Your task to perform on an android device: turn on priority inbox in the gmail app Image 0: 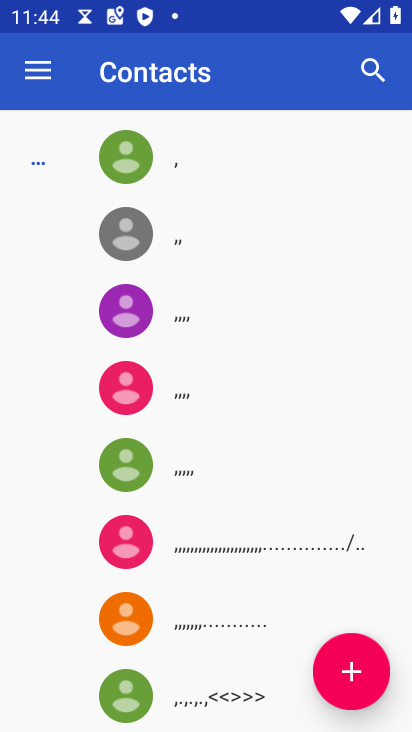
Step 0: press home button
Your task to perform on an android device: turn on priority inbox in the gmail app Image 1: 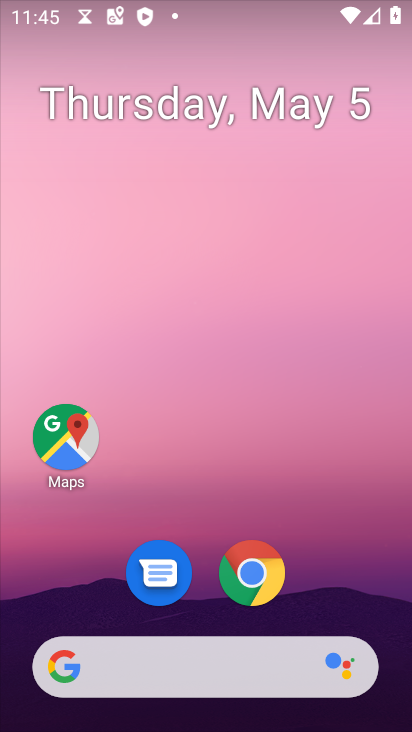
Step 1: drag from (310, 526) to (284, 238)
Your task to perform on an android device: turn on priority inbox in the gmail app Image 2: 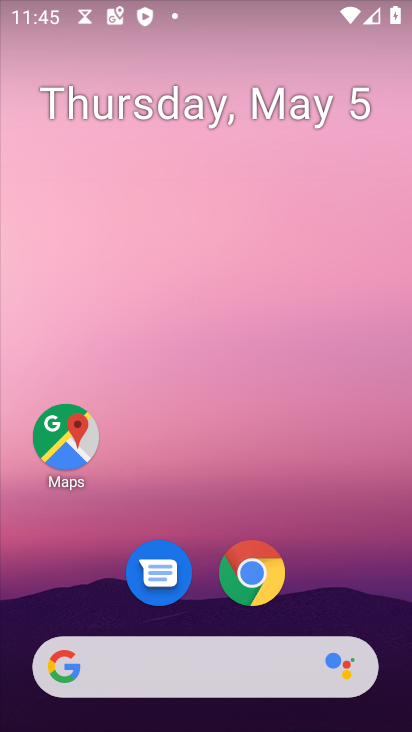
Step 2: drag from (298, 582) to (318, 220)
Your task to perform on an android device: turn on priority inbox in the gmail app Image 3: 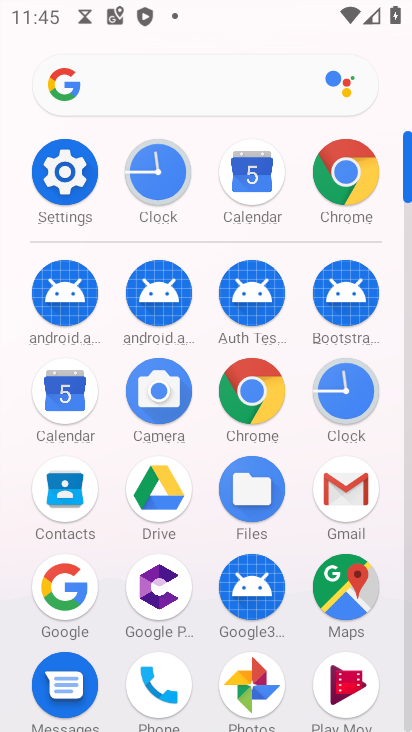
Step 3: click (339, 485)
Your task to perform on an android device: turn on priority inbox in the gmail app Image 4: 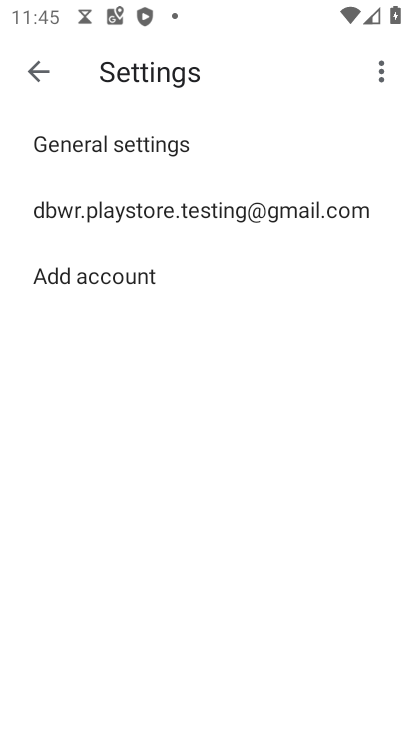
Step 4: click (144, 197)
Your task to perform on an android device: turn on priority inbox in the gmail app Image 5: 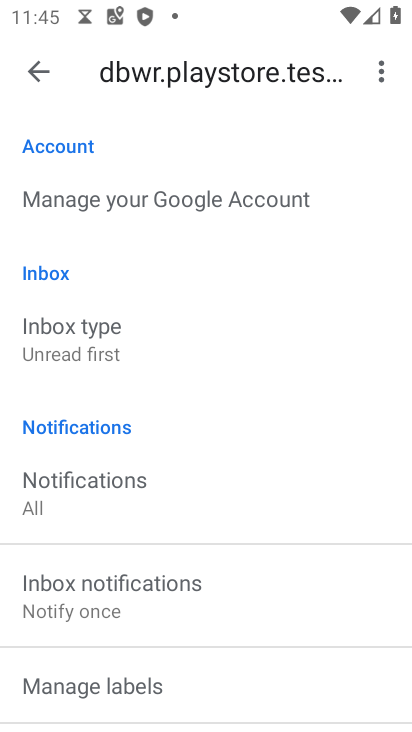
Step 5: drag from (125, 606) to (193, 277)
Your task to perform on an android device: turn on priority inbox in the gmail app Image 6: 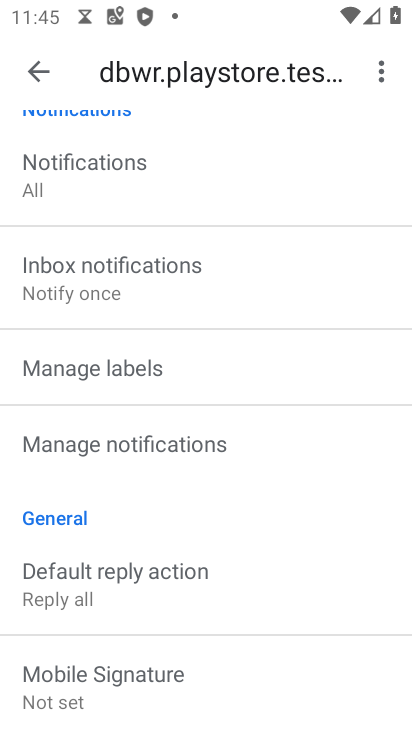
Step 6: click (115, 286)
Your task to perform on an android device: turn on priority inbox in the gmail app Image 7: 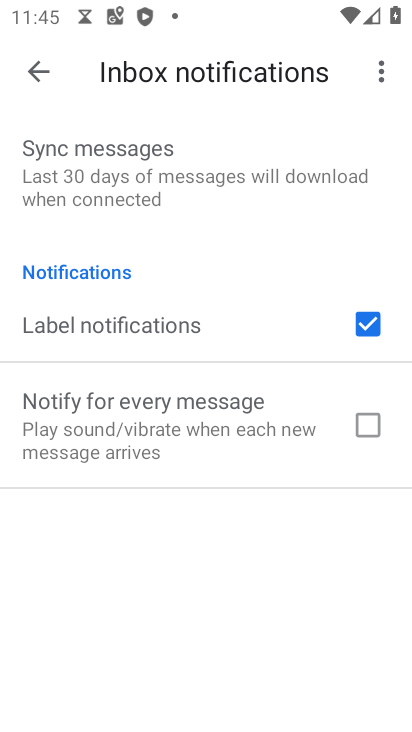
Step 7: click (31, 61)
Your task to perform on an android device: turn on priority inbox in the gmail app Image 8: 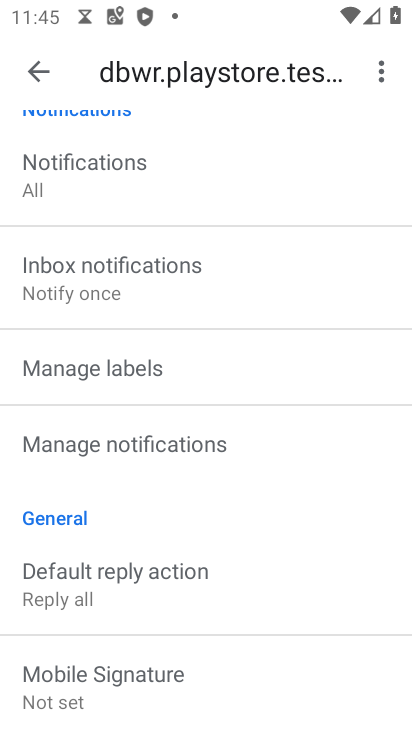
Step 8: click (105, 270)
Your task to perform on an android device: turn on priority inbox in the gmail app Image 9: 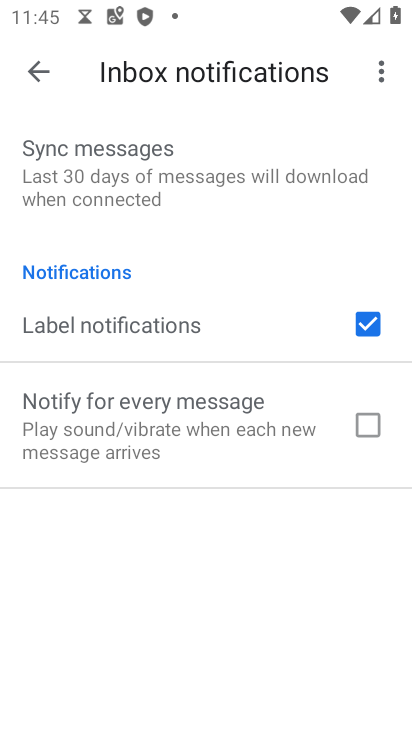
Step 9: click (25, 73)
Your task to perform on an android device: turn on priority inbox in the gmail app Image 10: 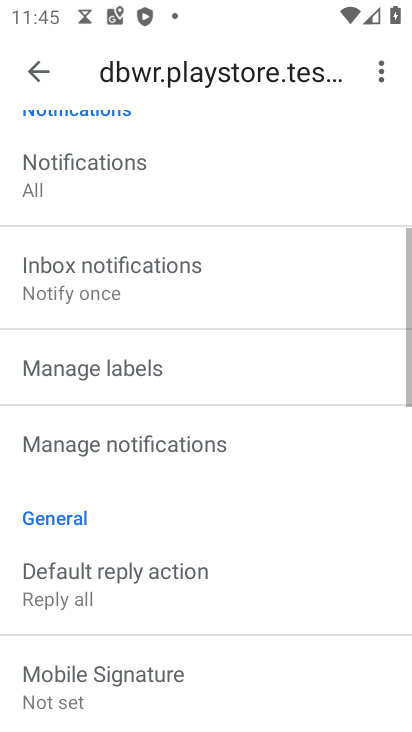
Step 10: drag from (153, 379) to (168, 181)
Your task to perform on an android device: turn on priority inbox in the gmail app Image 11: 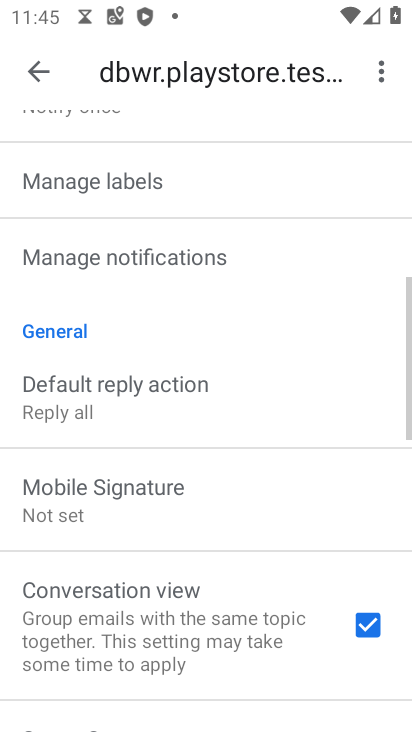
Step 11: drag from (166, 196) to (163, 677)
Your task to perform on an android device: turn on priority inbox in the gmail app Image 12: 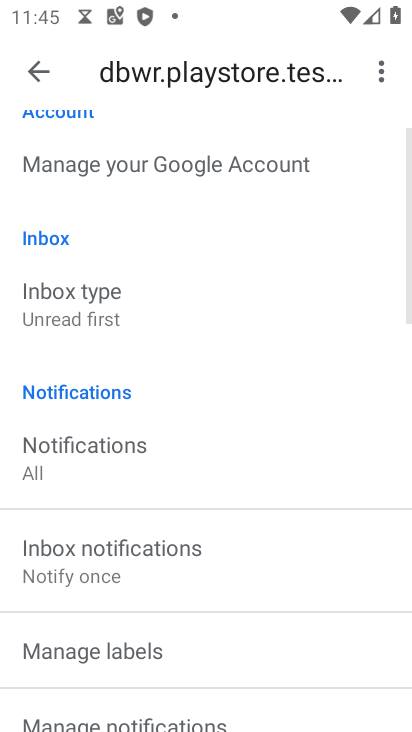
Step 12: click (80, 314)
Your task to perform on an android device: turn on priority inbox in the gmail app Image 13: 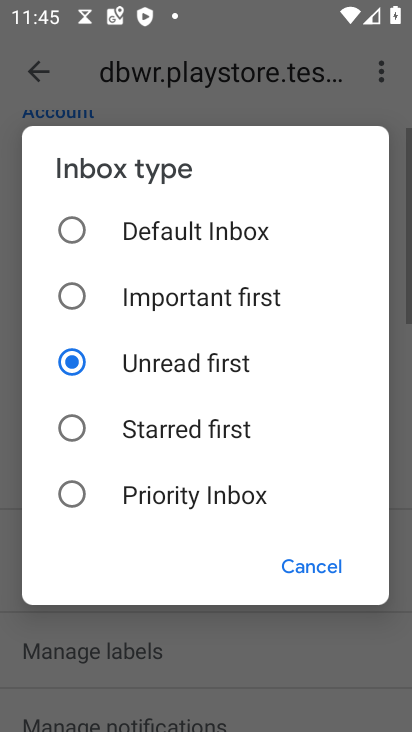
Step 13: click (183, 495)
Your task to perform on an android device: turn on priority inbox in the gmail app Image 14: 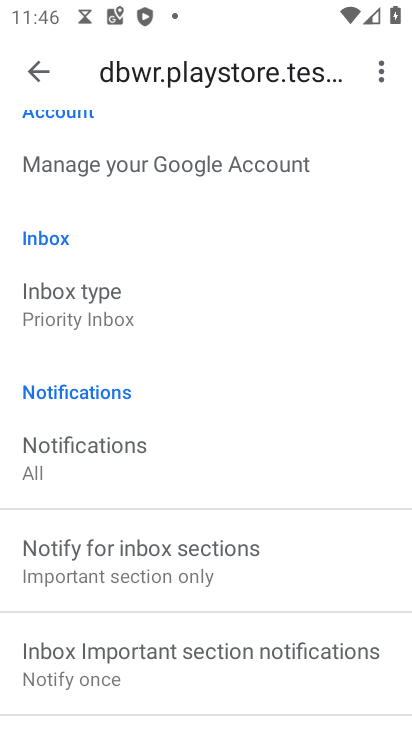
Step 14: task complete